Your task to perform on an android device: check data usage Image 0: 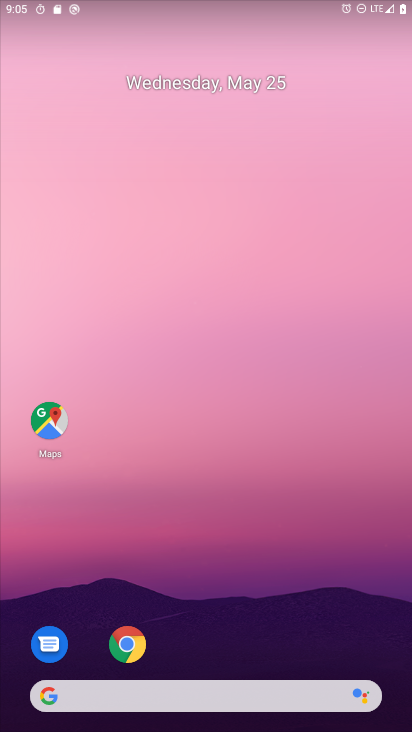
Step 0: drag from (352, 647) to (338, 48)
Your task to perform on an android device: check data usage Image 1: 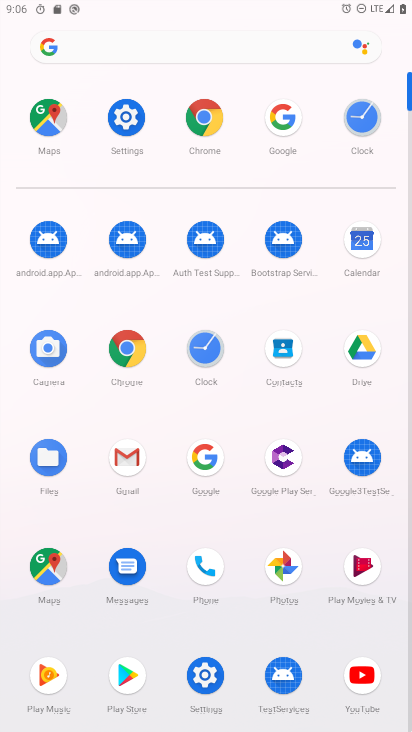
Step 1: click (207, 695)
Your task to perform on an android device: check data usage Image 2: 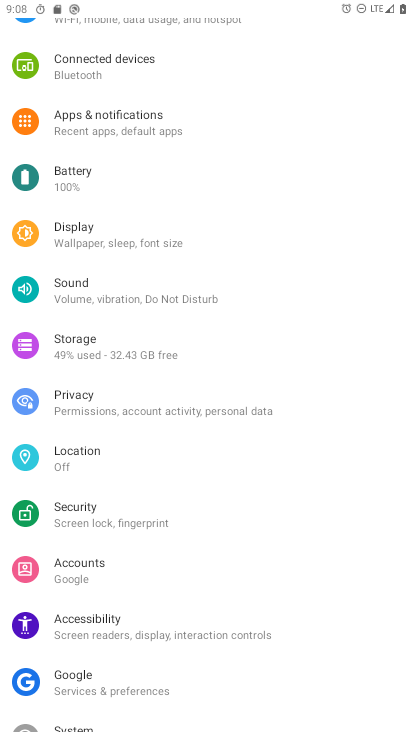
Step 2: drag from (144, 125) to (149, 682)
Your task to perform on an android device: check data usage Image 3: 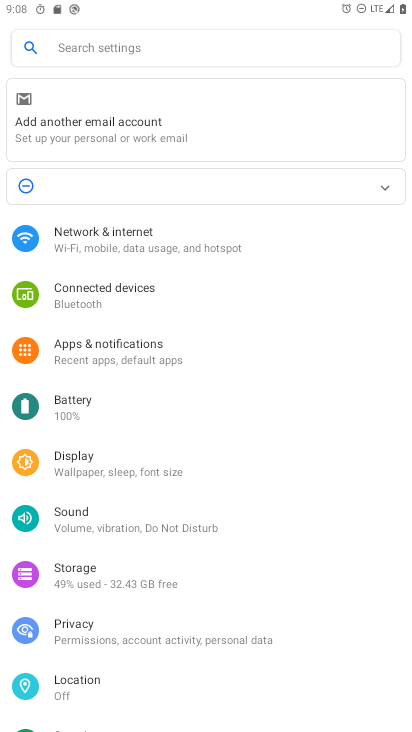
Step 3: click (163, 257)
Your task to perform on an android device: check data usage Image 4: 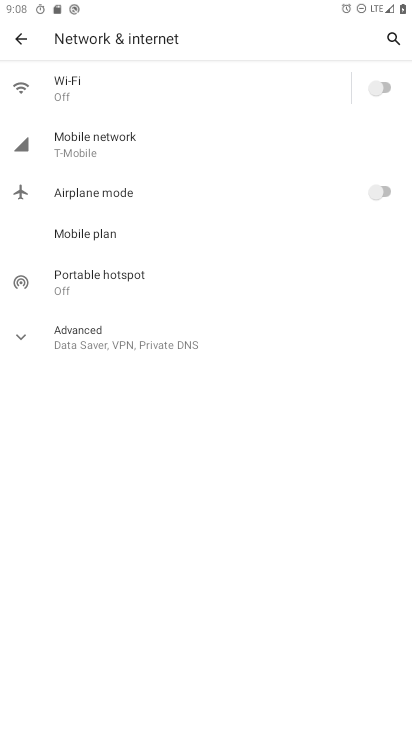
Step 4: click (144, 145)
Your task to perform on an android device: check data usage Image 5: 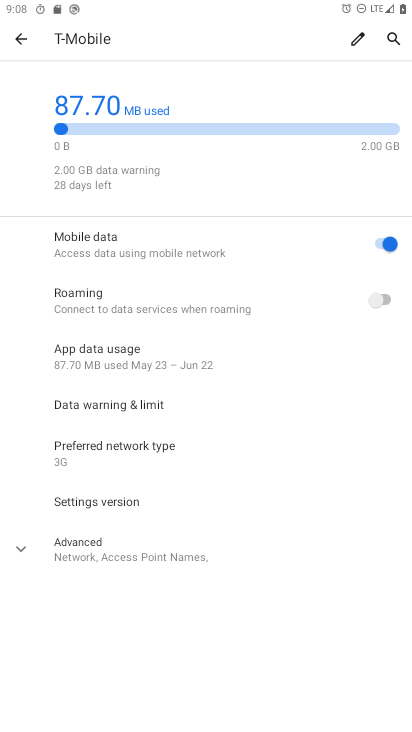
Step 5: click (129, 353)
Your task to perform on an android device: check data usage Image 6: 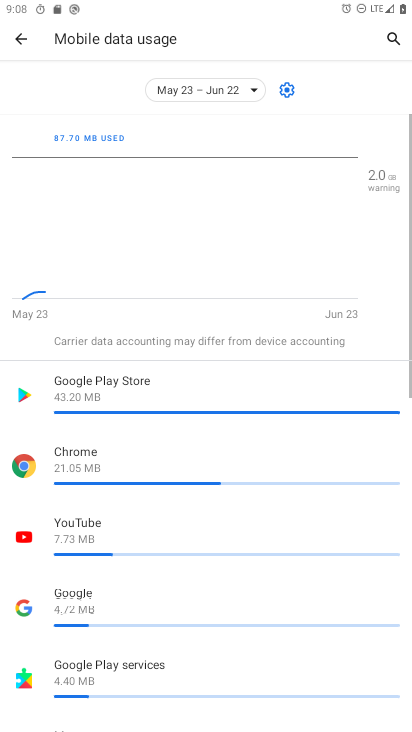
Step 6: task complete